Your task to perform on an android device: check out phone information Image 0: 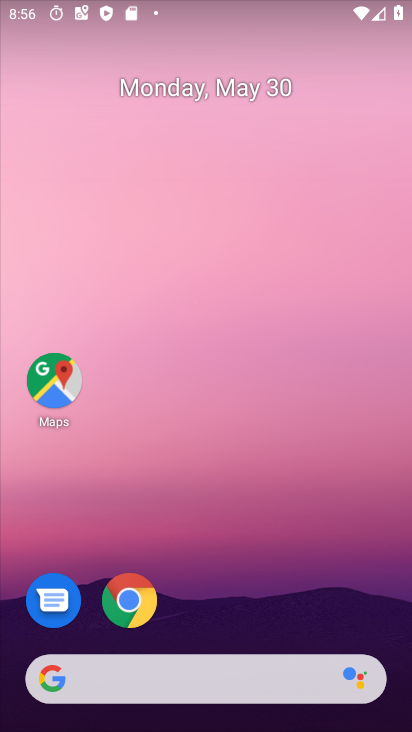
Step 0: drag from (271, 570) to (231, 20)
Your task to perform on an android device: check out phone information Image 1: 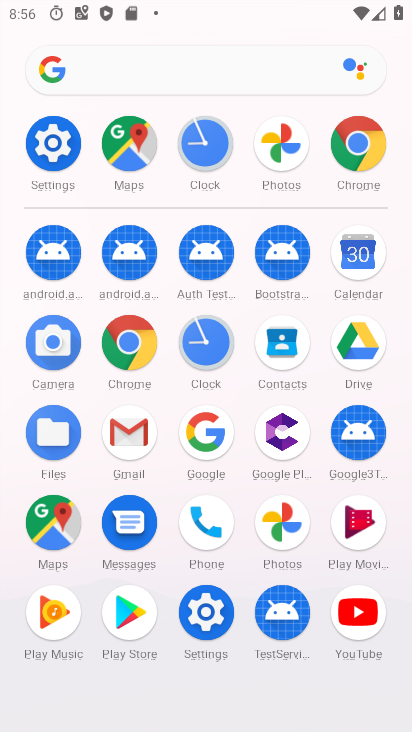
Step 1: drag from (6, 584) to (13, 268)
Your task to perform on an android device: check out phone information Image 2: 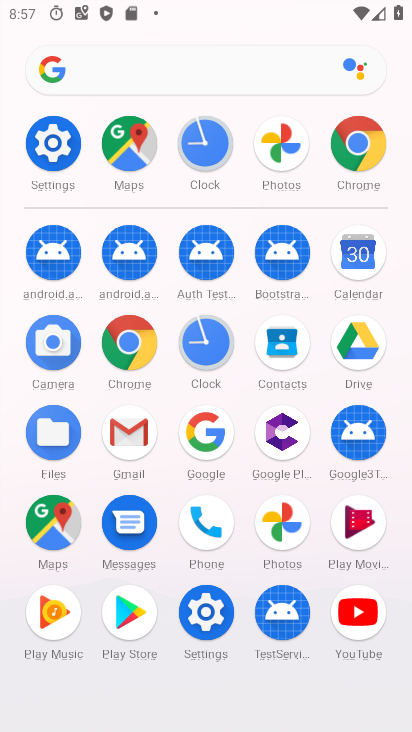
Step 2: click (204, 608)
Your task to perform on an android device: check out phone information Image 3: 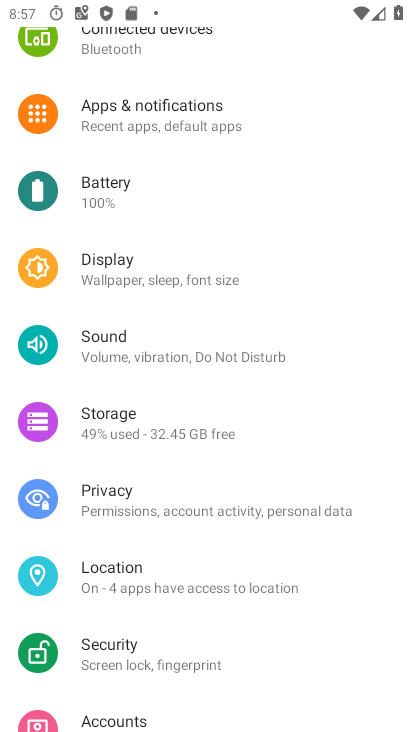
Step 3: drag from (277, 607) to (270, 138)
Your task to perform on an android device: check out phone information Image 4: 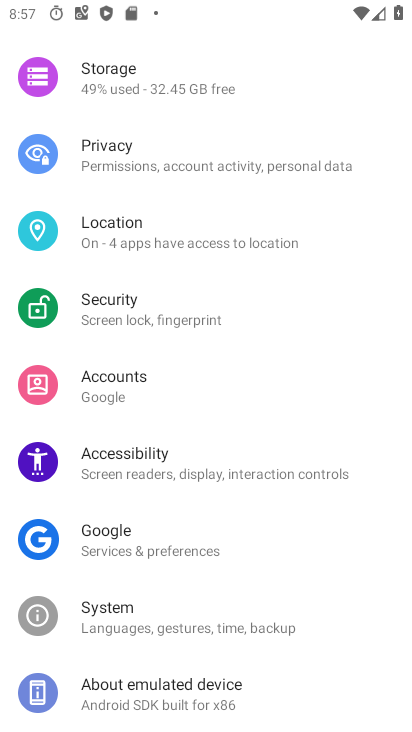
Step 4: drag from (255, 543) to (268, 128)
Your task to perform on an android device: check out phone information Image 5: 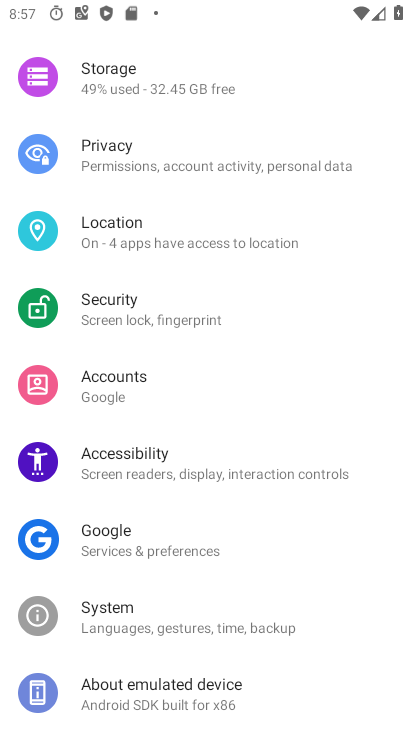
Step 5: click (218, 681)
Your task to perform on an android device: check out phone information Image 6: 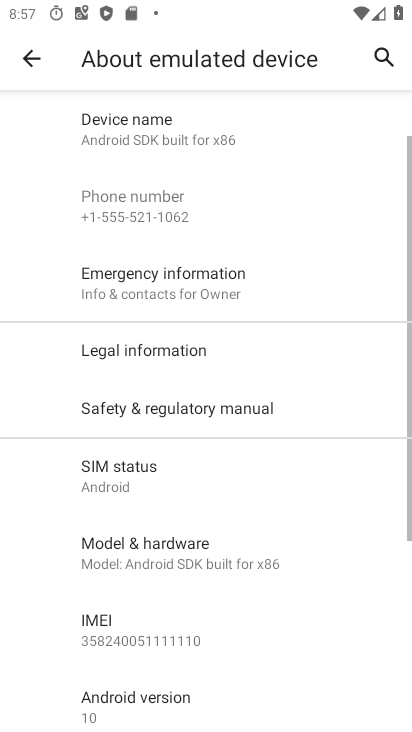
Step 6: task complete